Your task to perform on an android device: Go to network settings Image 0: 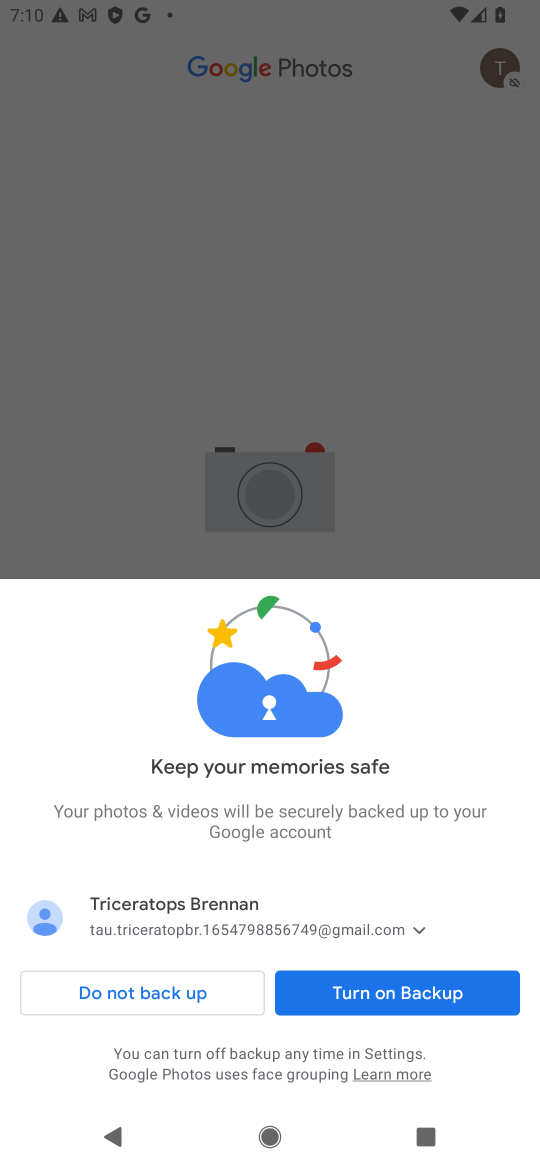
Step 0: press home button
Your task to perform on an android device: Go to network settings Image 1: 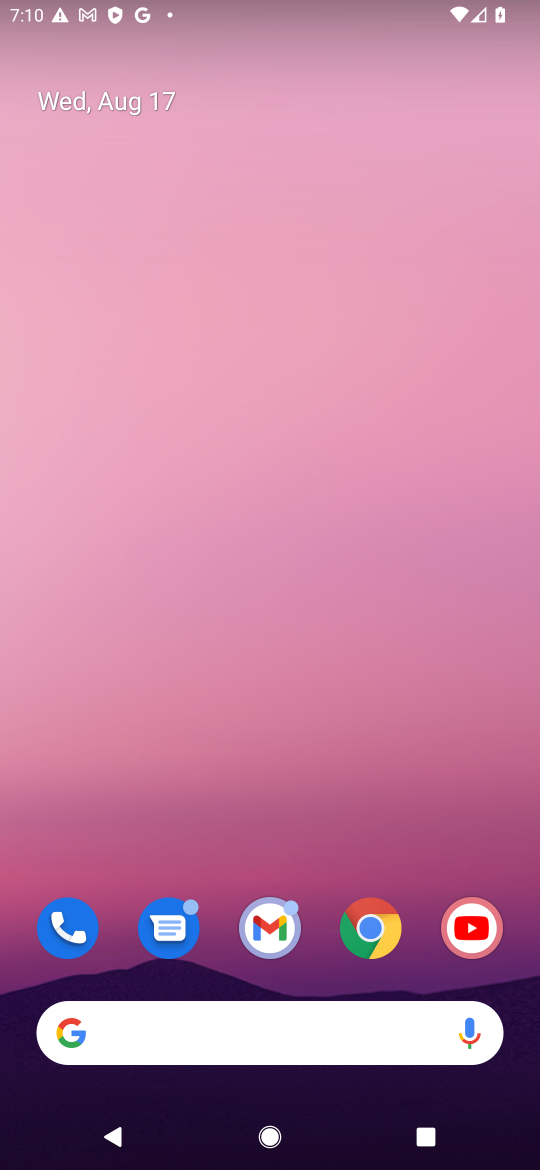
Step 1: drag from (237, 1047) to (231, 33)
Your task to perform on an android device: Go to network settings Image 2: 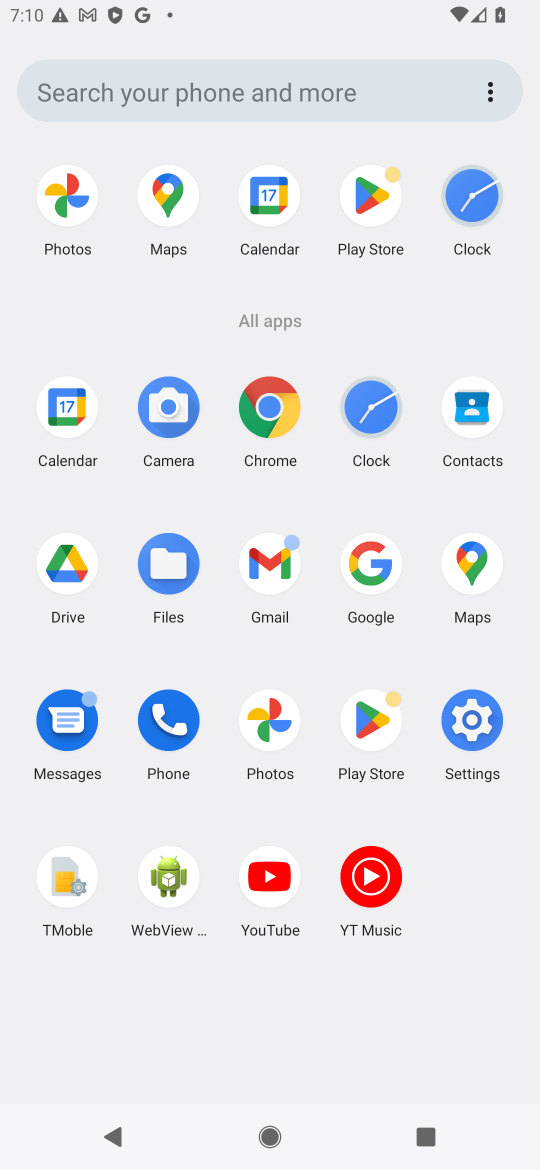
Step 2: click (475, 726)
Your task to perform on an android device: Go to network settings Image 3: 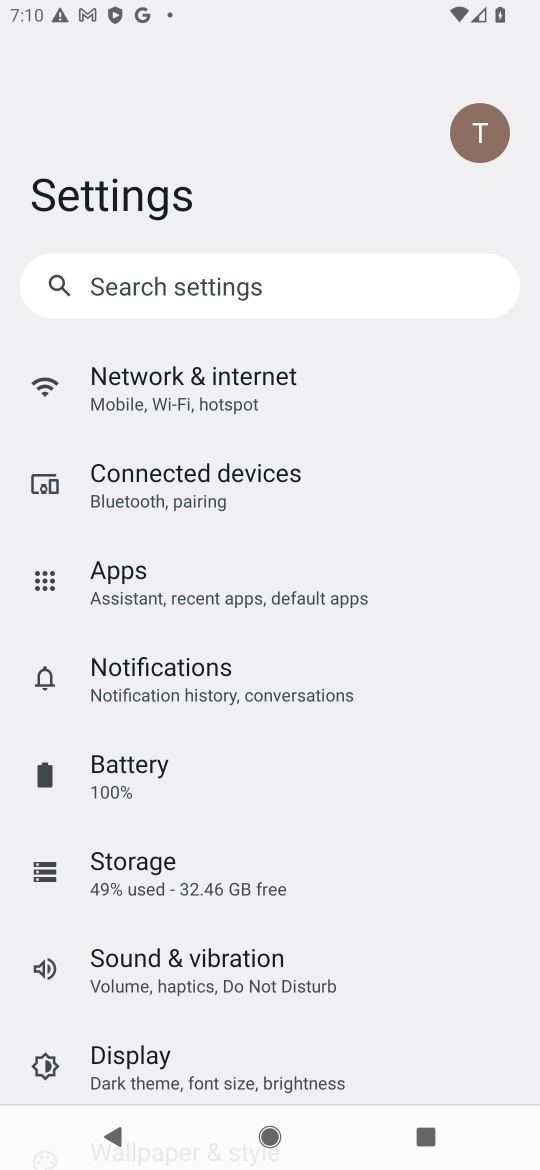
Step 3: click (203, 379)
Your task to perform on an android device: Go to network settings Image 4: 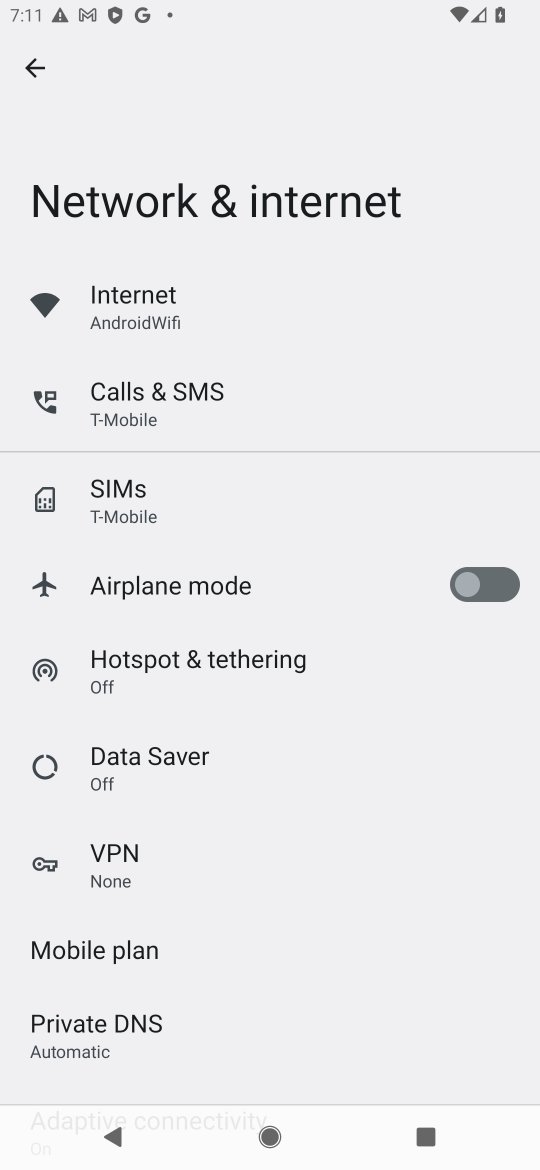
Step 4: task complete